Your task to perform on an android device: Open Google Maps Image 0: 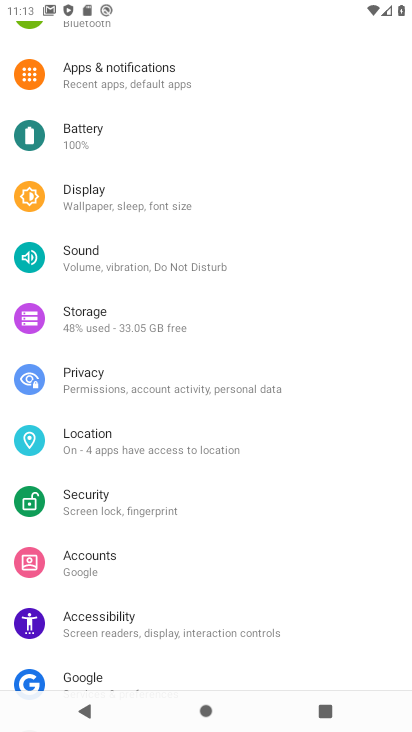
Step 0: press home button
Your task to perform on an android device: Open Google Maps Image 1: 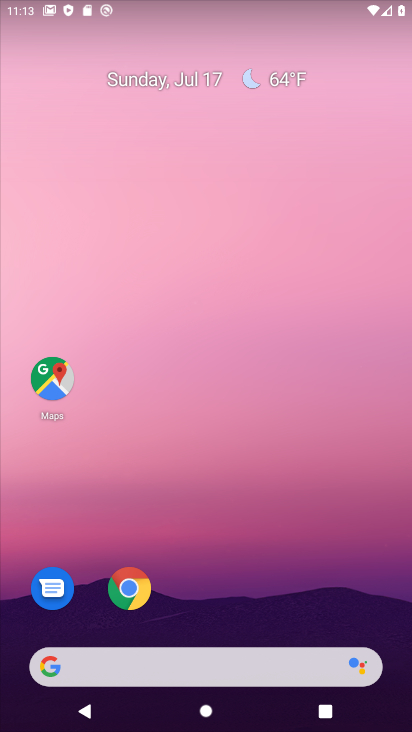
Step 1: drag from (248, 618) to (279, 273)
Your task to perform on an android device: Open Google Maps Image 2: 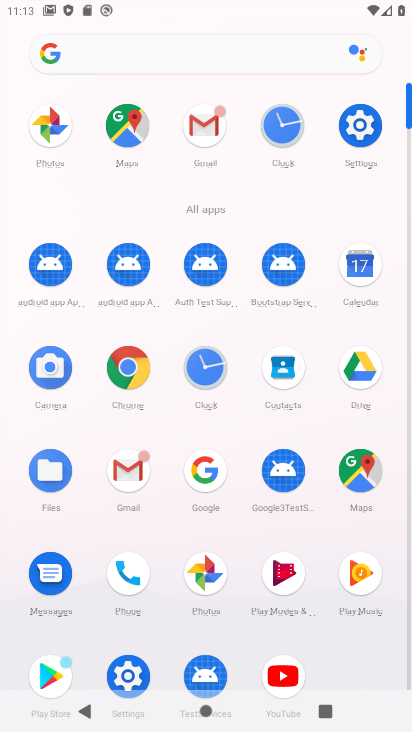
Step 2: click (363, 466)
Your task to perform on an android device: Open Google Maps Image 3: 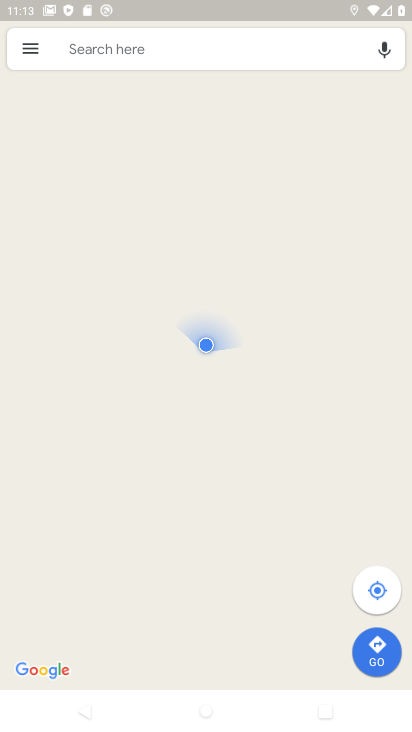
Step 3: task complete